Your task to perform on an android device: check out phone information Image 0: 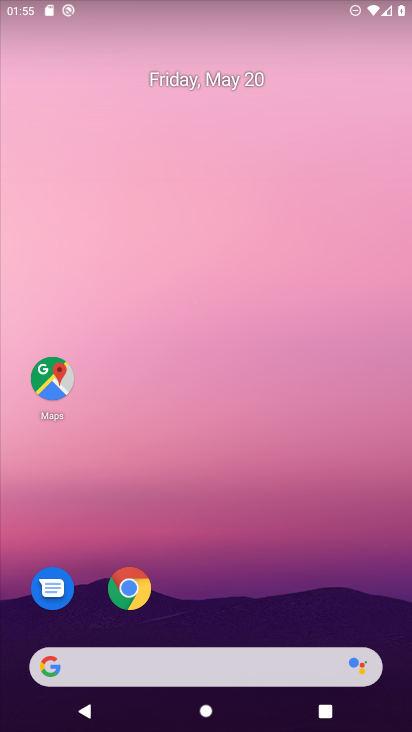
Step 0: drag from (388, 620) to (340, 94)
Your task to perform on an android device: check out phone information Image 1: 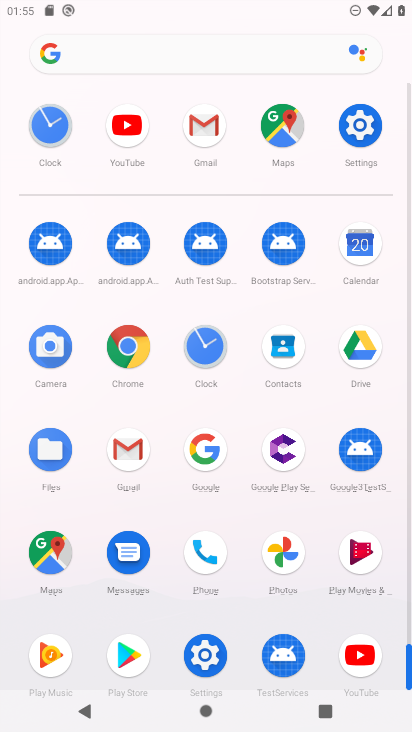
Step 1: click (204, 654)
Your task to perform on an android device: check out phone information Image 2: 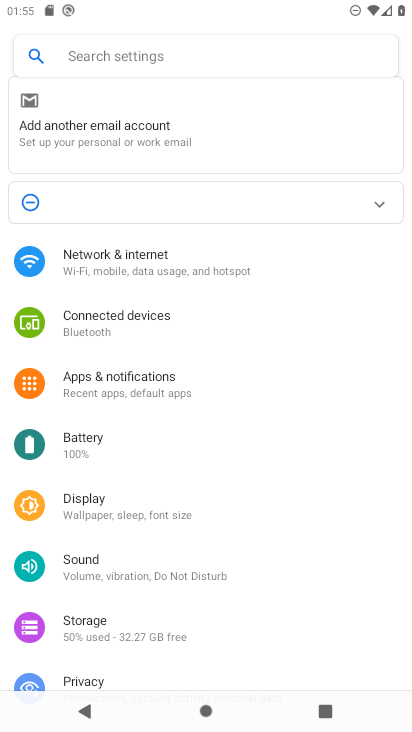
Step 2: drag from (281, 606) to (305, 208)
Your task to perform on an android device: check out phone information Image 3: 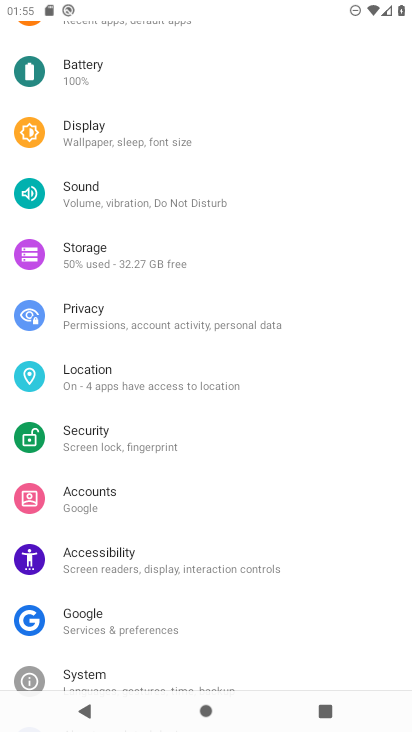
Step 3: drag from (231, 634) to (311, 216)
Your task to perform on an android device: check out phone information Image 4: 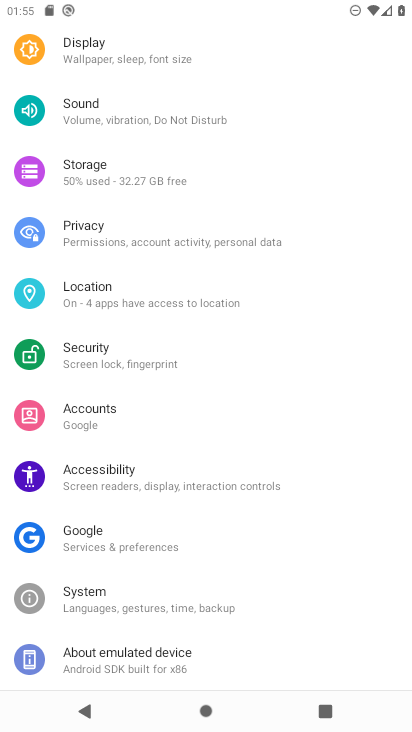
Step 4: click (93, 654)
Your task to perform on an android device: check out phone information Image 5: 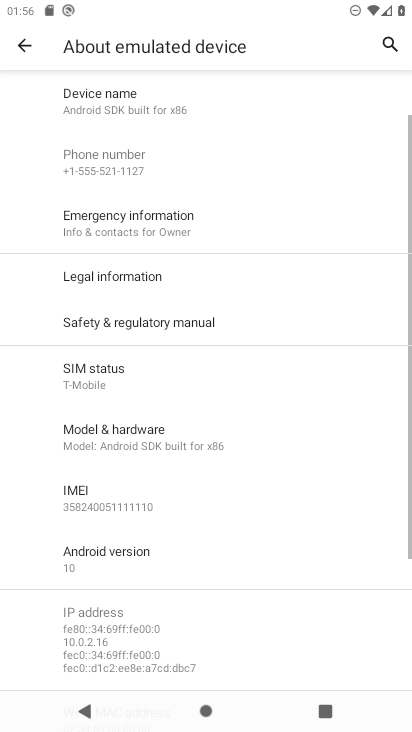
Step 5: task complete